Your task to perform on an android device: Open internet settings Image 0: 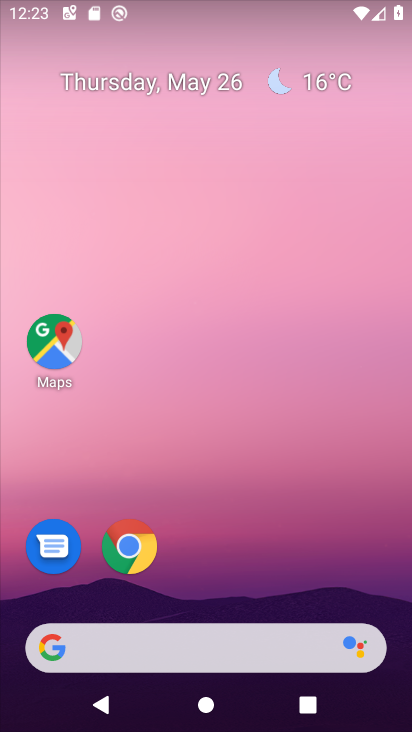
Step 0: drag from (187, 601) to (266, 211)
Your task to perform on an android device: Open internet settings Image 1: 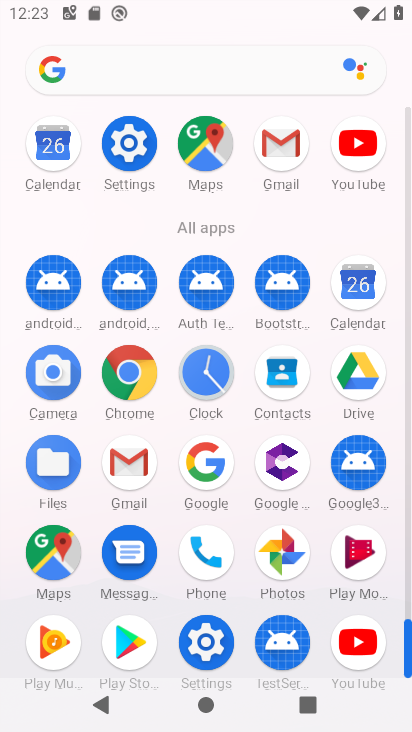
Step 1: click (127, 146)
Your task to perform on an android device: Open internet settings Image 2: 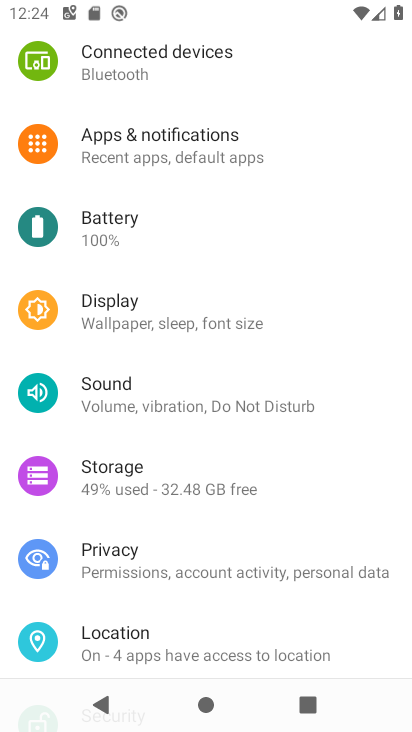
Step 2: drag from (178, 135) to (156, 646)
Your task to perform on an android device: Open internet settings Image 3: 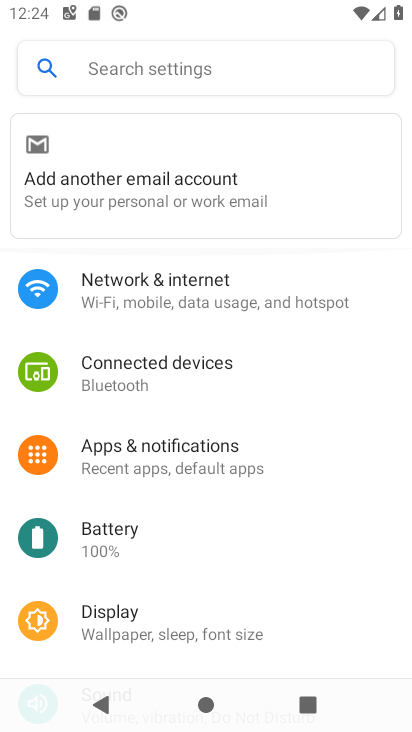
Step 3: click (162, 285)
Your task to perform on an android device: Open internet settings Image 4: 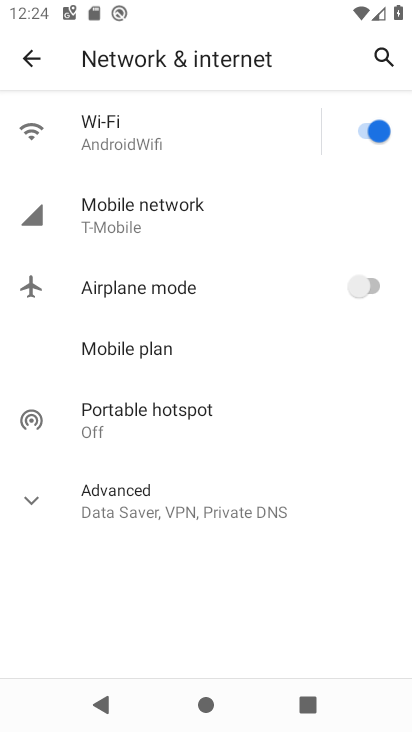
Step 4: click (125, 129)
Your task to perform on an android device: Open internet settings Image 5: 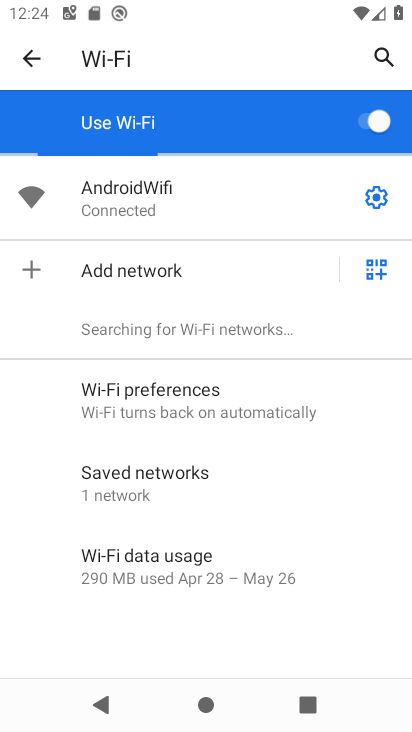
Step 5: task complete